Your task to perform on an android device: change keyboard looks Image 0: 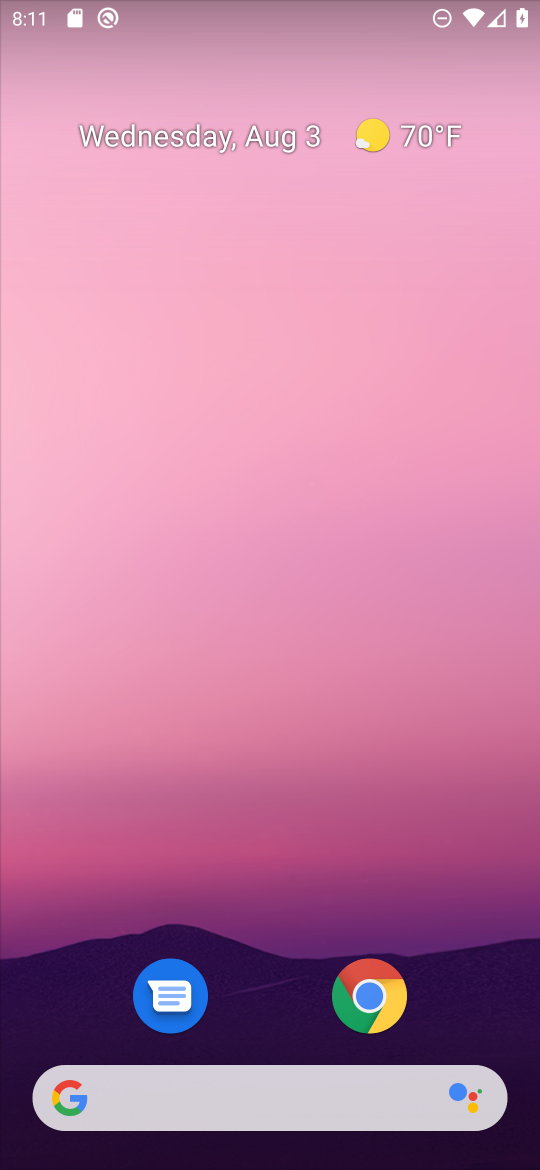
Step 0: drag from (321, 837) to (393, 12)
Your task to perform on an android device: change keyboard looks Image 1: 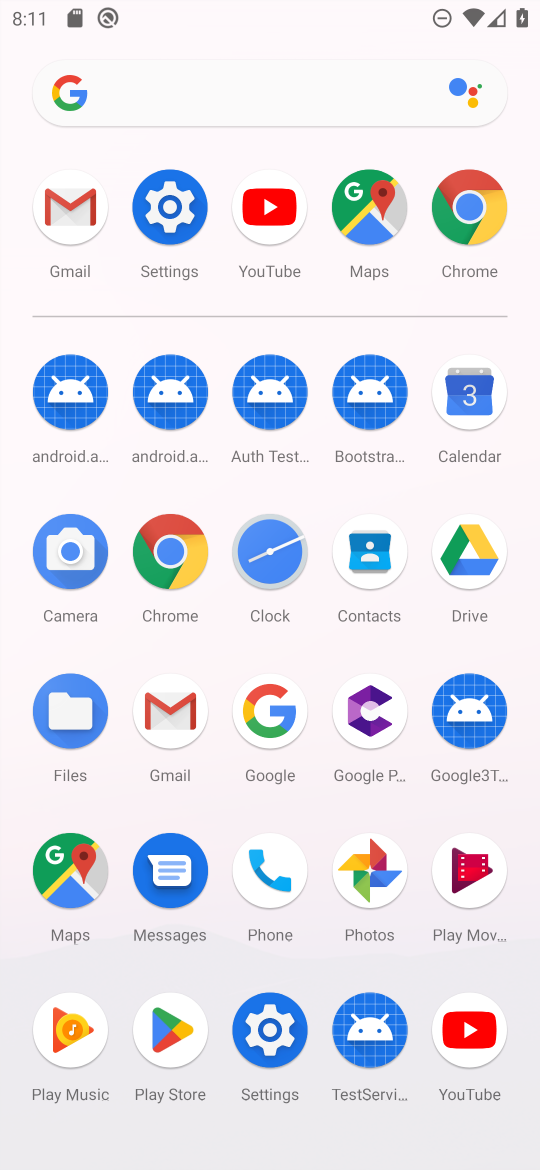
Step 1: click (165, 216)
Your task to perform on an android device: change keyboard looks Image 2: 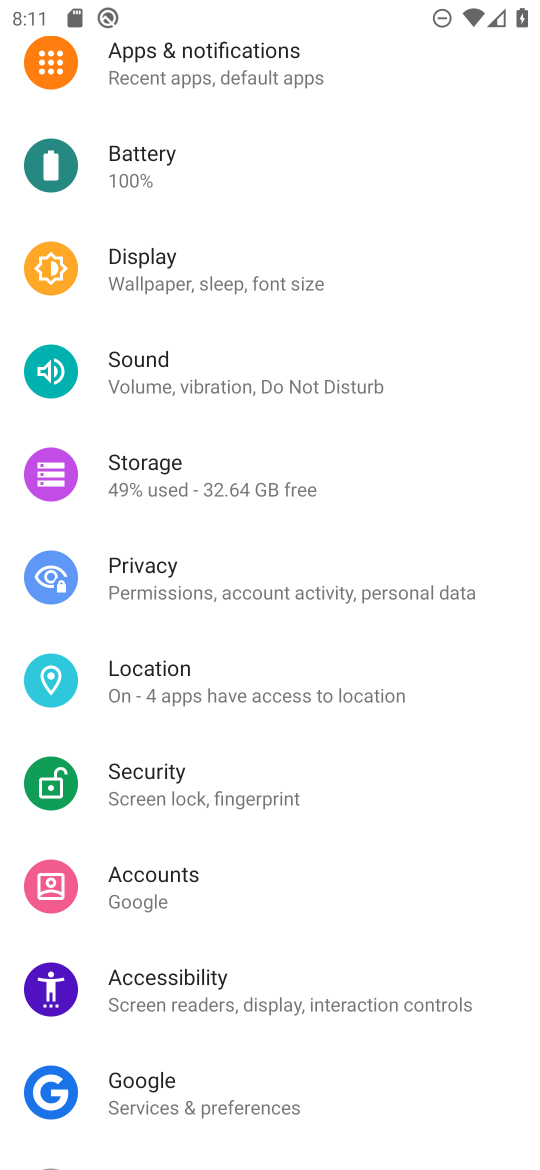
Step 2: drag from (292, 897) to (301, 498)
Your task to perform on an android device: change keyboard looks Image 3: 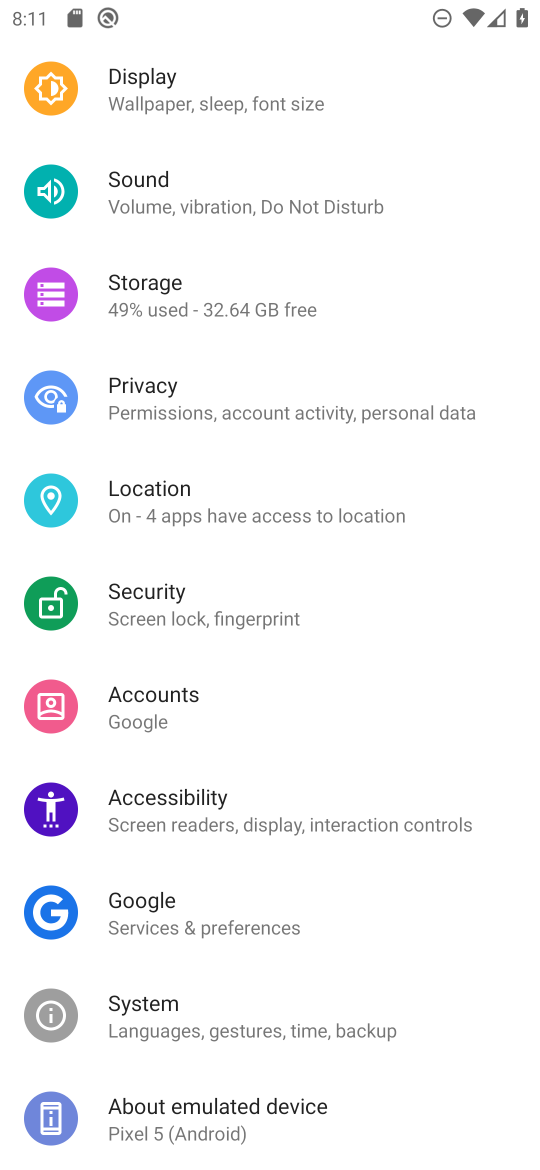
Step 3: click (271, 1024)
Your task to perform on an android device: change keyboard looks Image 4: 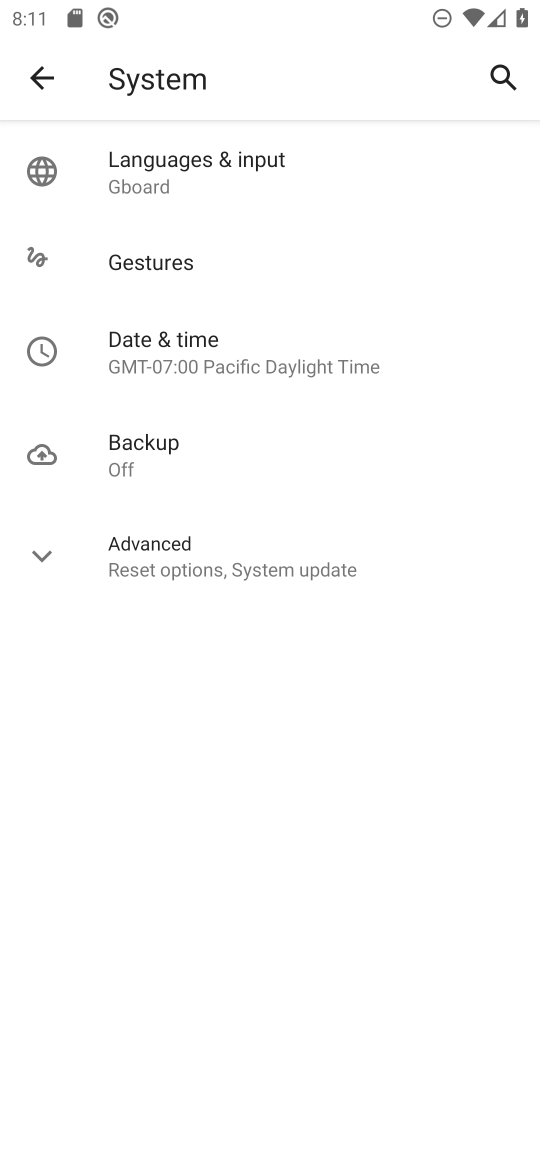
Step 4: click (171, 163)
Your task to perform on an android device: change keyboard looks Image 5: 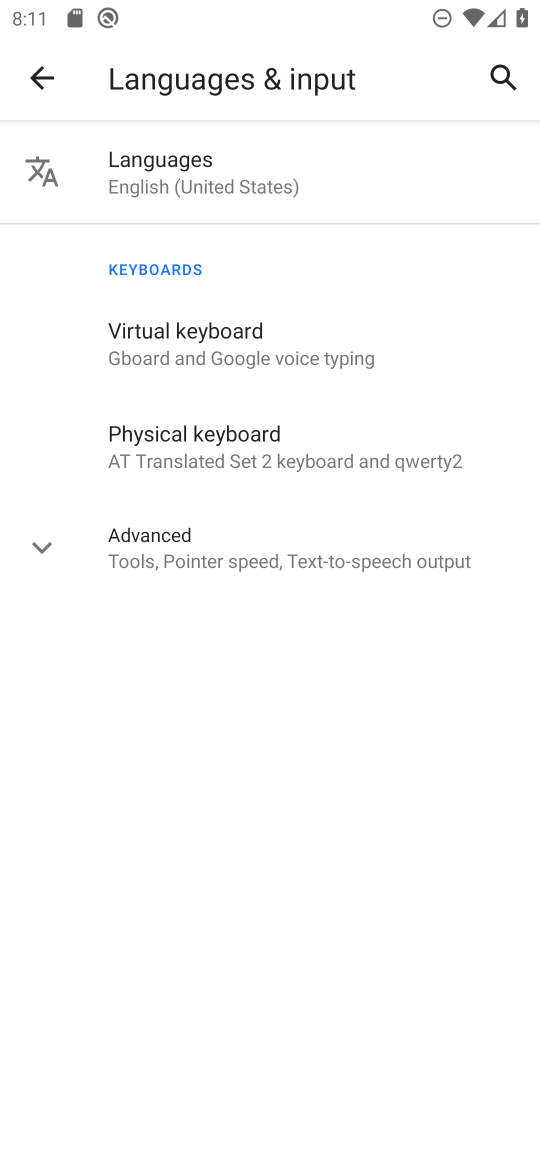
Step 5: click (214, 324)
Your task to perform on an android device: change keyboard looks Image 6: 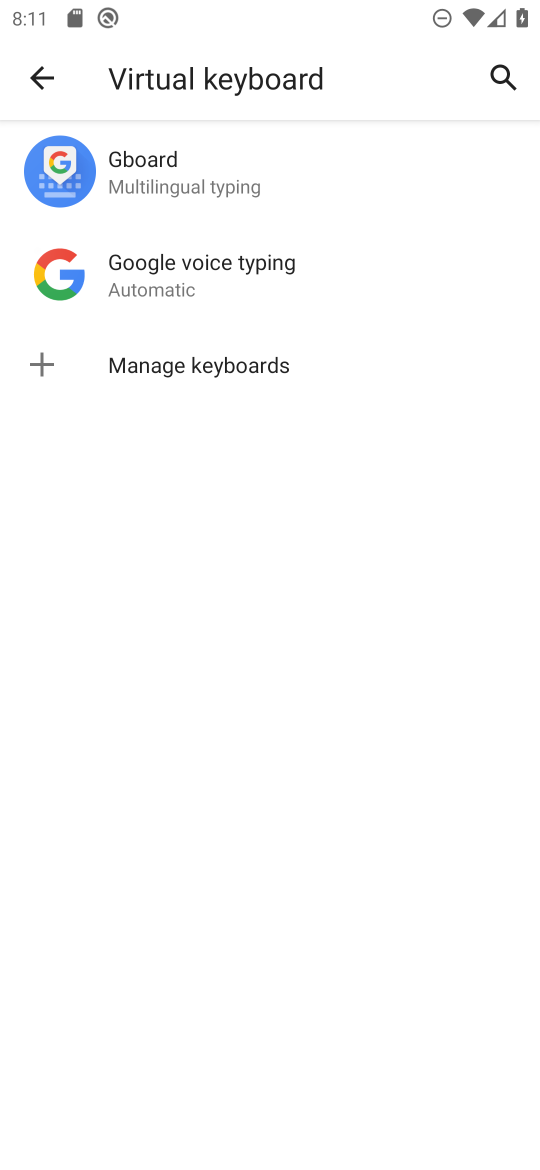
Step 6: click (195, 168)
Your task to perform on an android device: change keyboard looks Image 7: 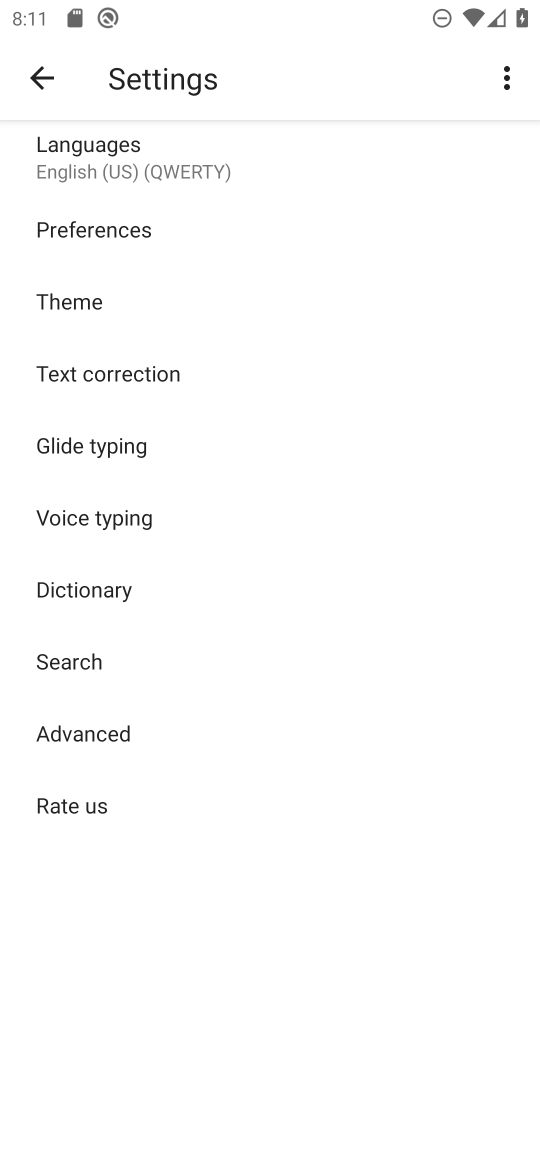
Step 7: click (99, 290)
Your task to perform on an android device: change keyboard looks Image 8: 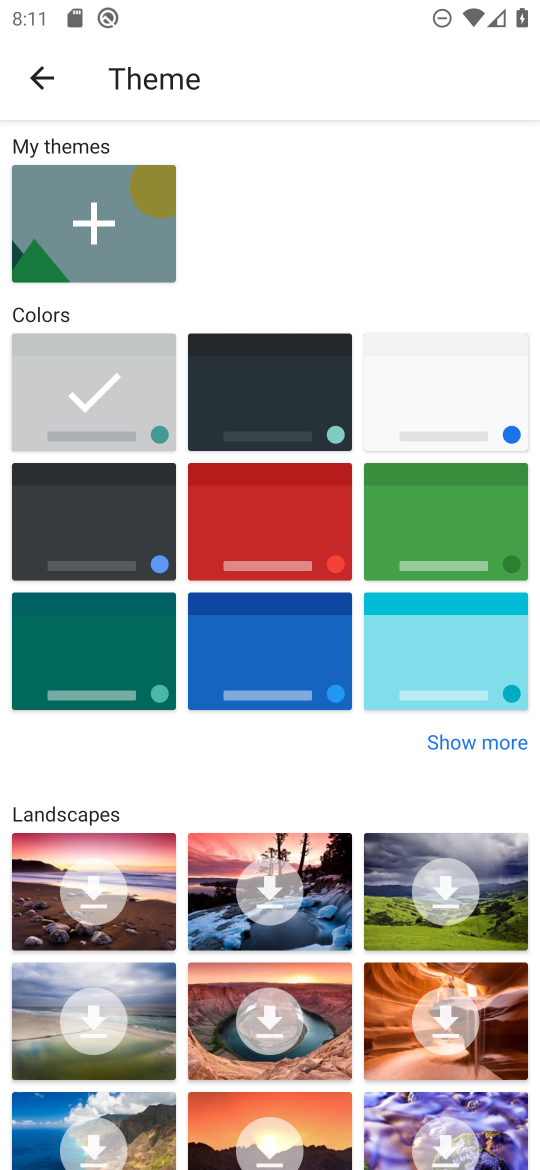
Step 8: click (289, 364)
Your task to perform on an android device: change keyboard looks Image 9: 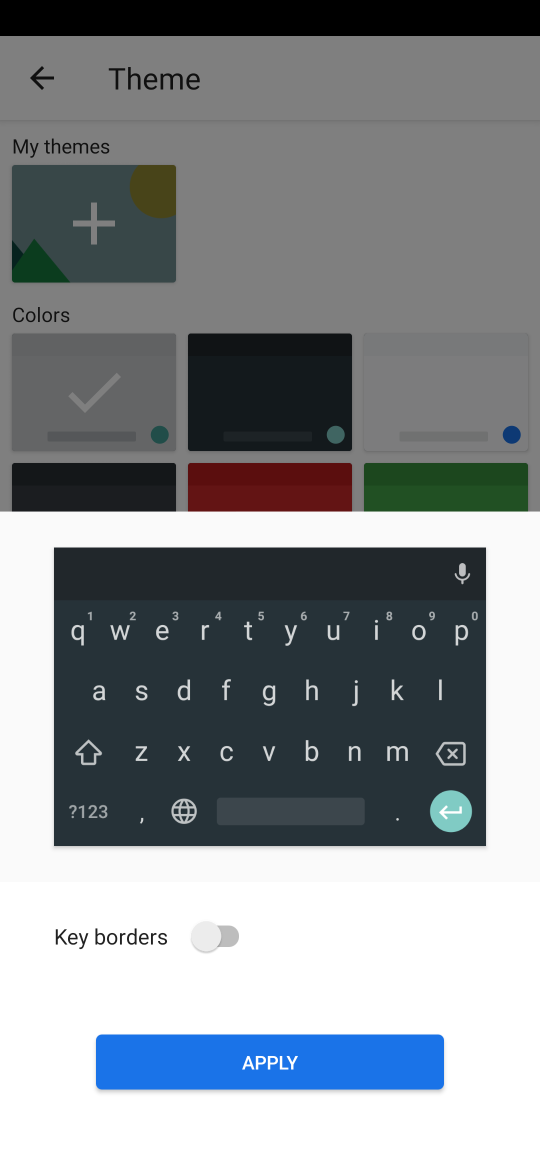
Step 9: click (230, 932)
Your task to perform on an android device: change keyboard looks Image 10: 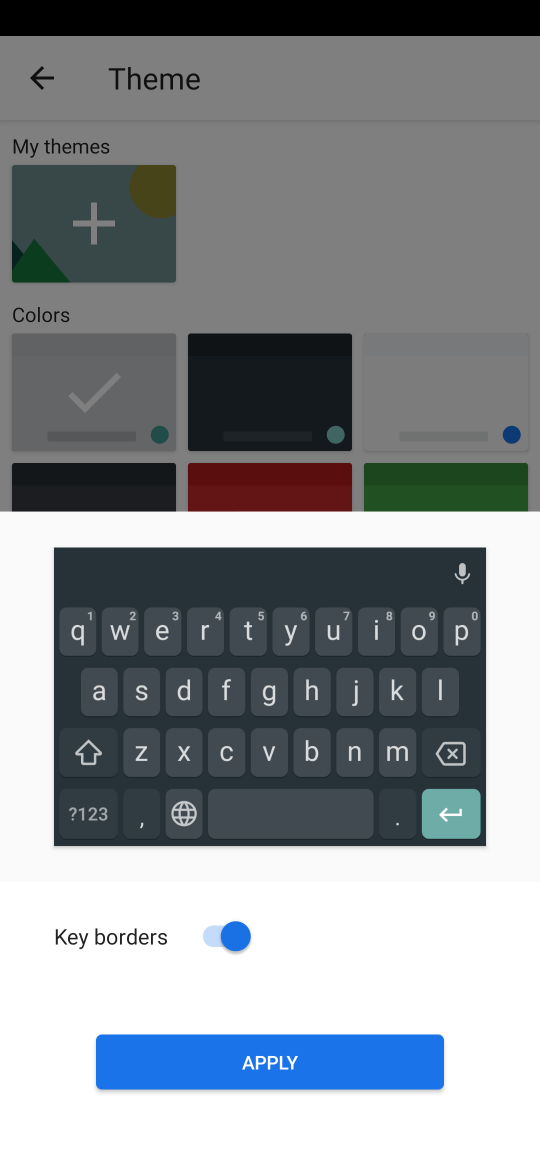
Step 10: click (288, 1070)
Your task to perform on an android device: change keyboard looks Image 11: 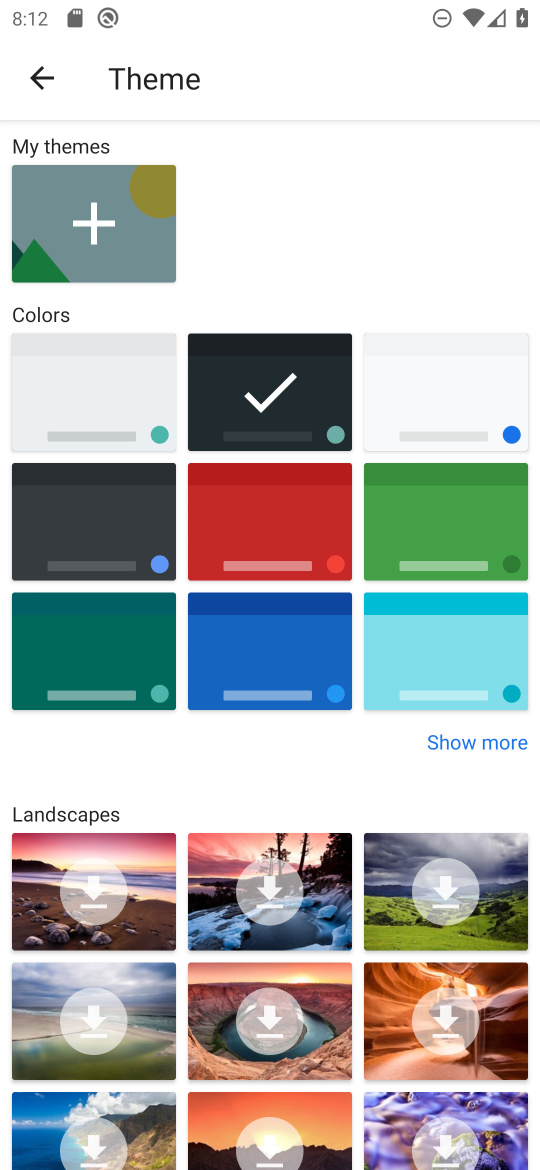
Step 11: task complete